Your task to perform on an android device: Go to CNN.com Image 0: 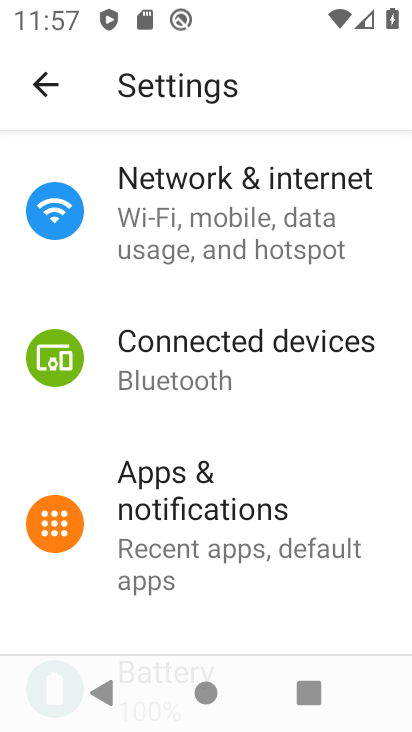
Step 0: press home button
Your task to perform on an android device: Go to CNN.com Image 1: 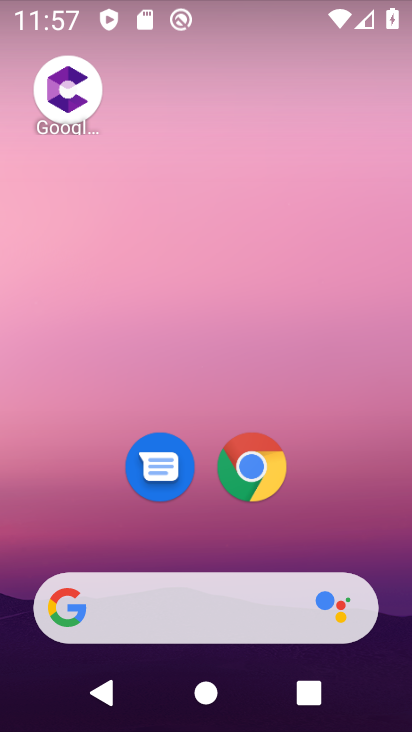
Step 1: click (253, 465)
Your task to perform on an android device: Go to CNN.com Image 2: 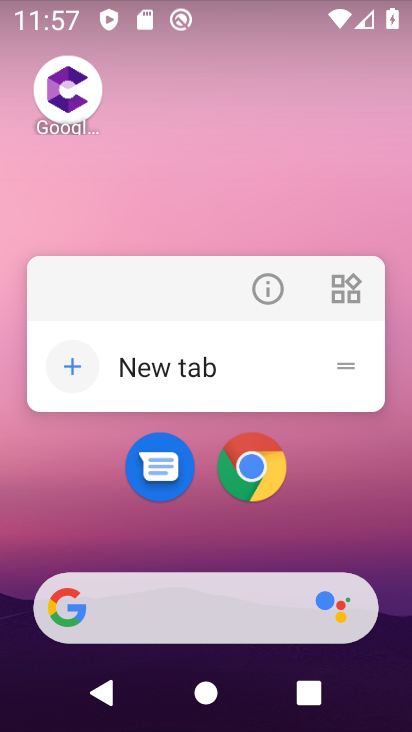
Step 2: click (247, 471)
Your task to perform on an android device: Go to CNN.com Image 3: 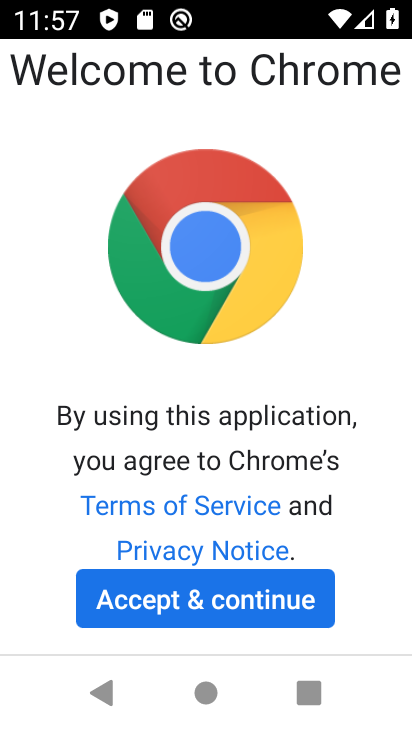
Step 3: click (199, 597)
Your task to perform on an android device: Go to CNN.com Image 4: 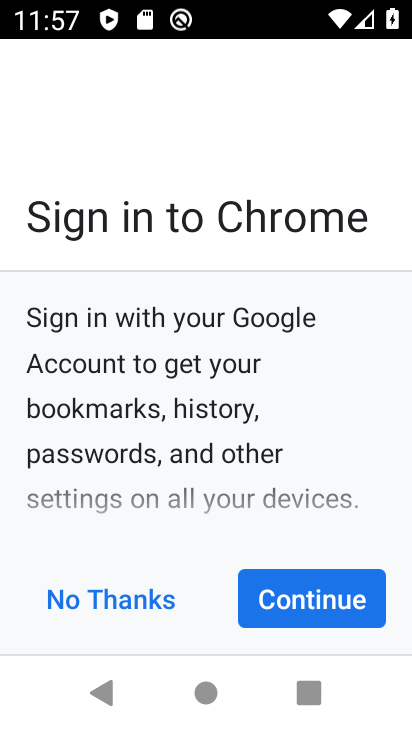
Step 4: click (300, 597)
Your task to perform on an android device: Go to CNN.com Image 5: 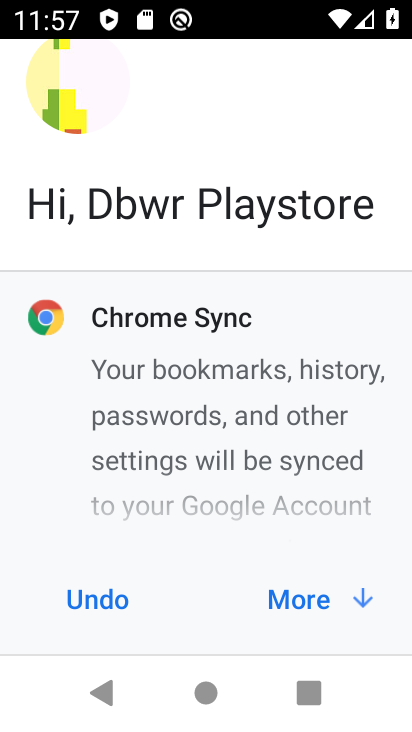
Step 5: click (300, 597)
Your task to perform on an android device: Go to CNN.com Image 6: 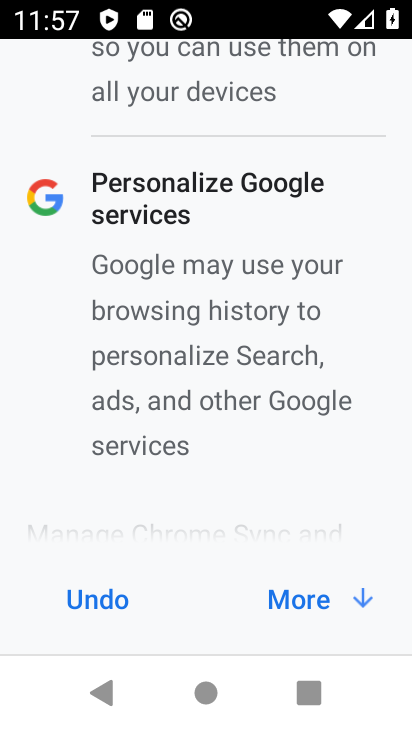
Step 6: click (300, 597)
Your task to perform on an android device: Go to CNN.com Image 7: 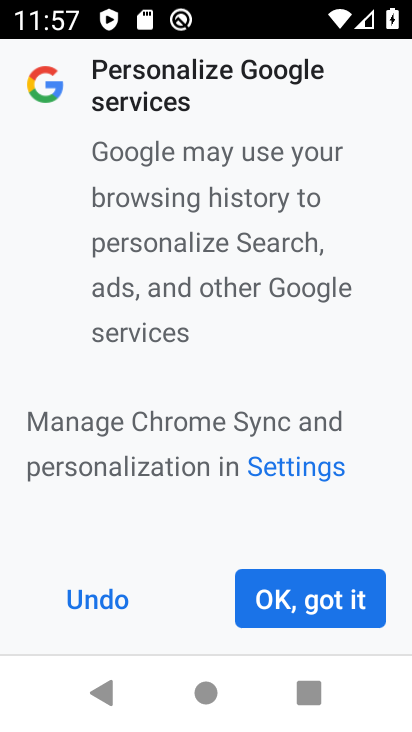
Step 7: click (324, 602)
Your task to perform on an android device: Go to CNN.com Image 8: 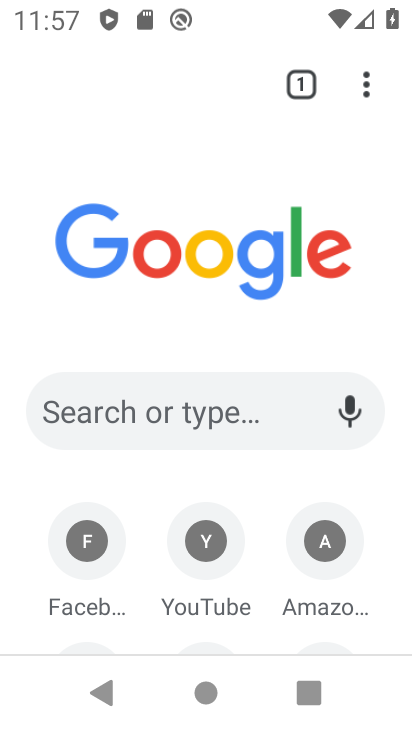
Step 8: click (100, 77)
Your task to perform on an android device: Go to CNN.com Image 9: 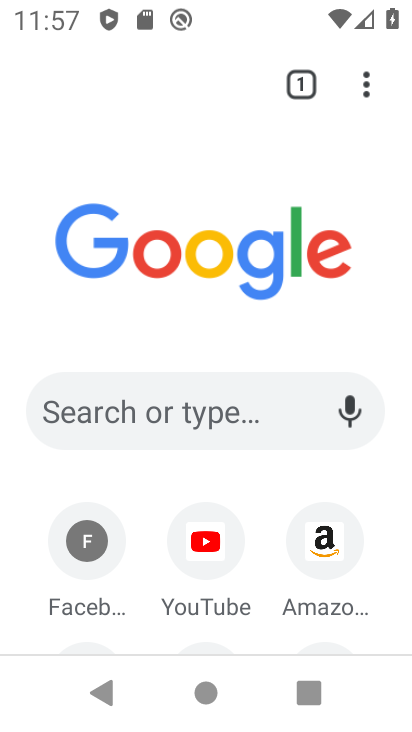
Step 9: click (127, 421)
Your task to perform on an android device: Go to CNN.com Image 10: 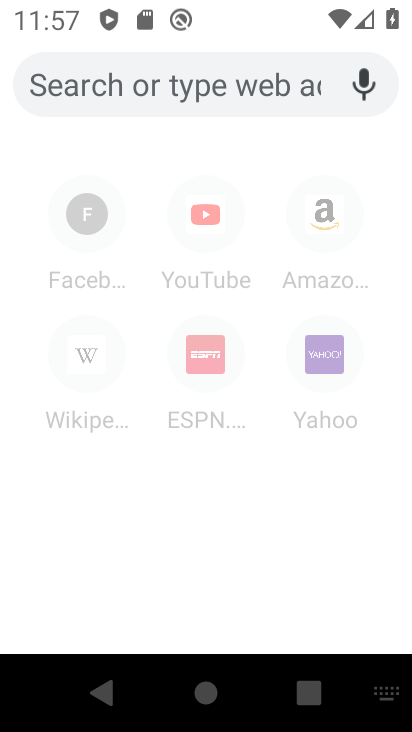
Step 10: type "cnn.com"
Your task to perform on an android device: Go to CNN.com Image 11: 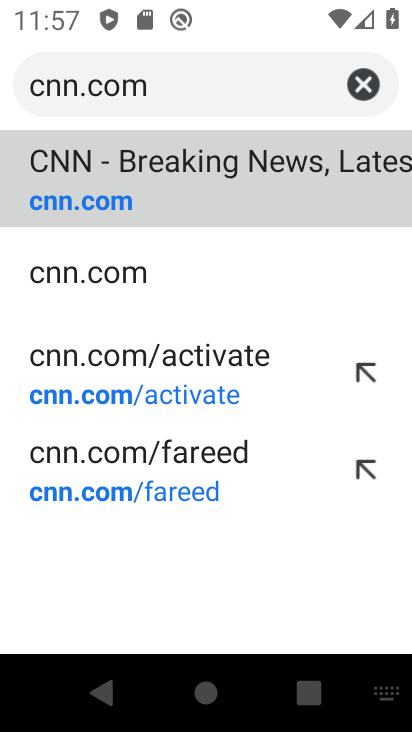
Step 11: click (79, 173)
Your task to perform on an android device: Go to CNN.com Image 12: 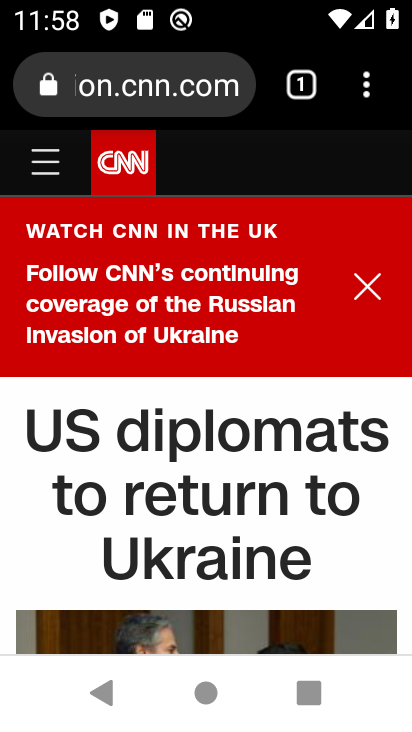
Step 12: task complete